Your task to perform on an android device: check data usage Image 0: 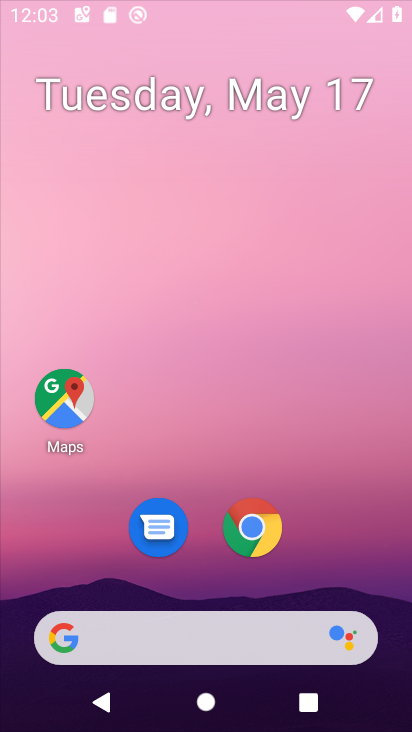
Step 0: drag from (348, 553) to (353, 111)
Your task to perform on an android device: check data usage Image 1: 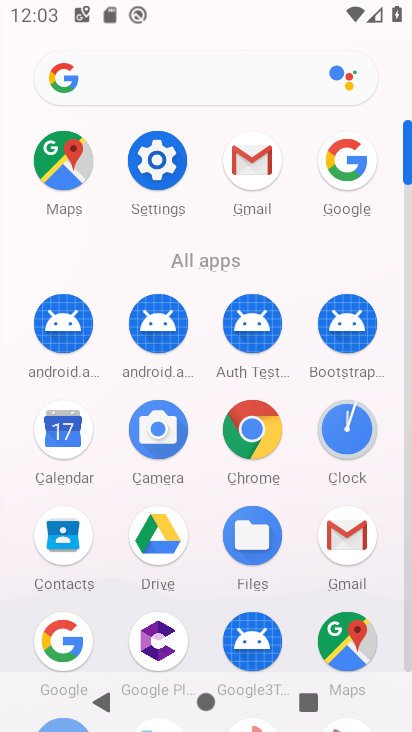
Step 1: click (160, 168)
Your task to perform on an android device: check data usage Image 2: 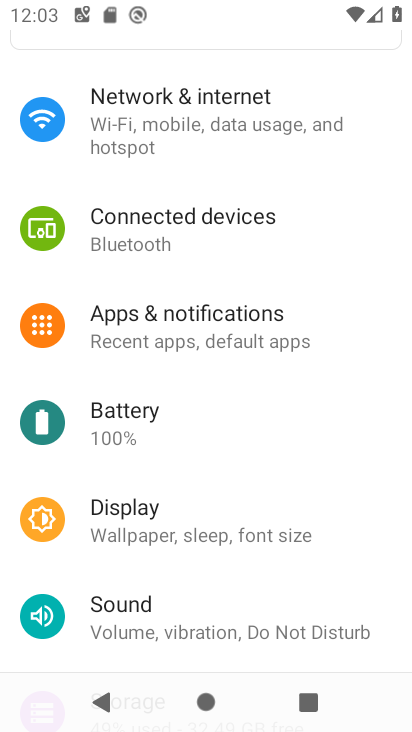
Step 2: click (196, 119)
Your task to perform on an android device: check data usage Image 3: 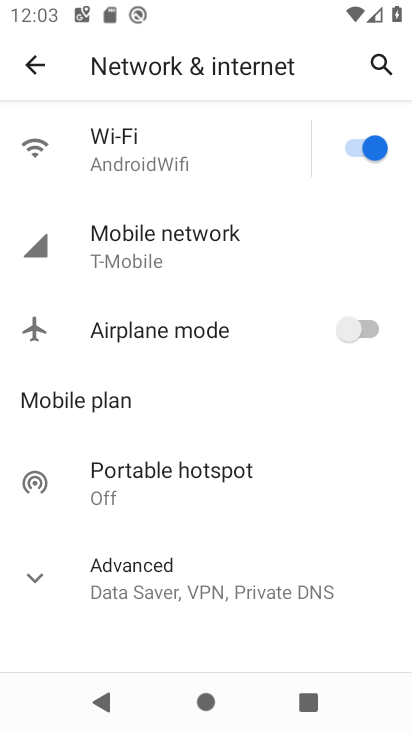
Step 3: click (174, 256)
Your task to perform on an android device: check data usage Image 4: 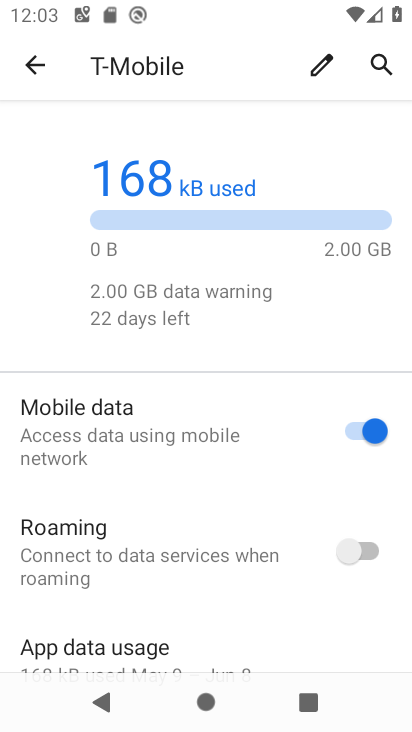
Step 4: click (132, 662)
Your task to perform on an android device: check data usage Image 5: 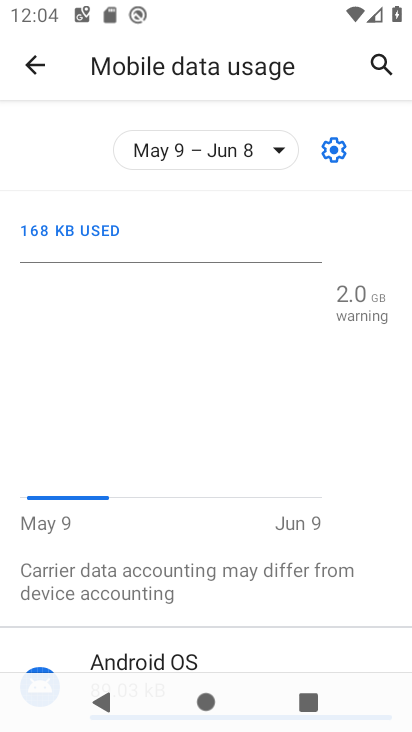
Step 5: task complete